Your task to perform on an android device: Open maps Image 0: 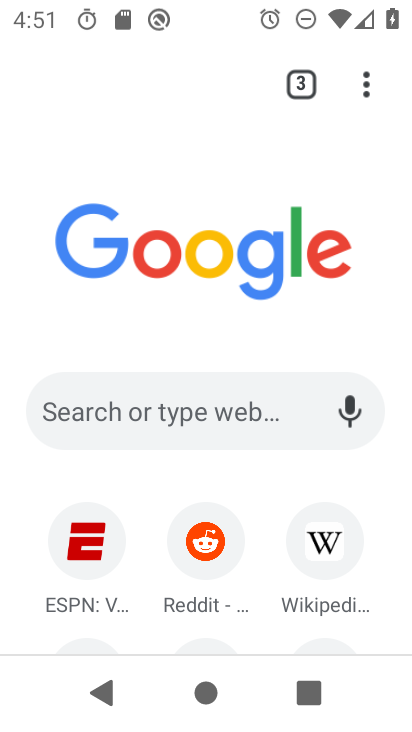
Step 0: press home button
Your task to perform on an android device: Open maps Image 1: 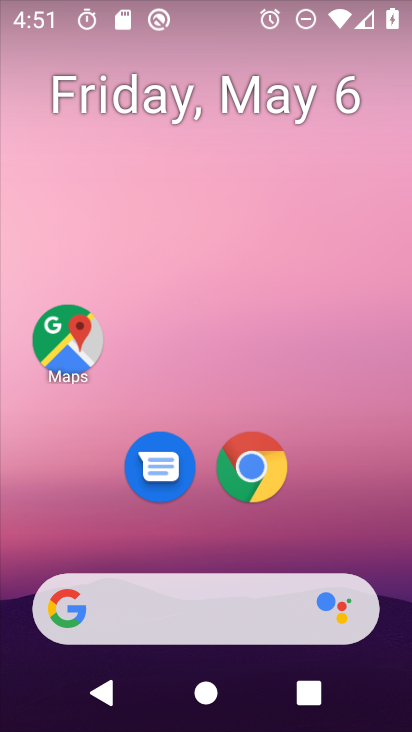
Step 1: click (59, 346)
Your task to perform on an android device: Open maps Image 2: 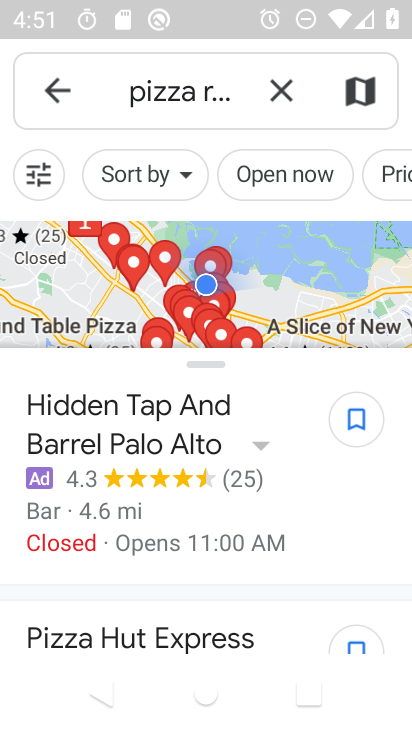
Step 2: task complete